Your task to perform on an android device: Search for pizza restaurants on Maps Image 0: 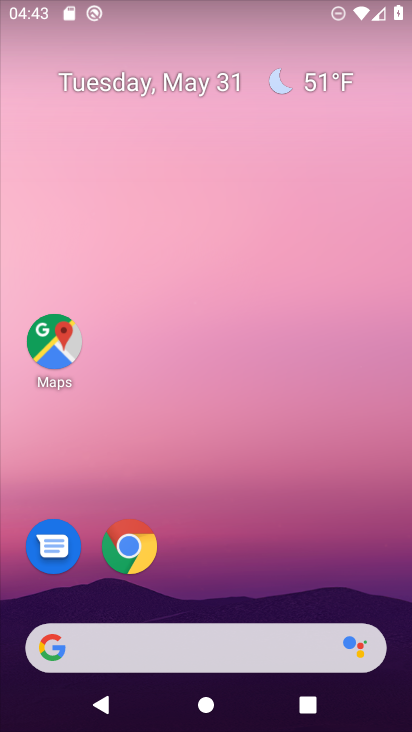
Step 0: click (43, 352)
Your task to perform on an android device: Search for pizza restaurants on Maps Image 1: 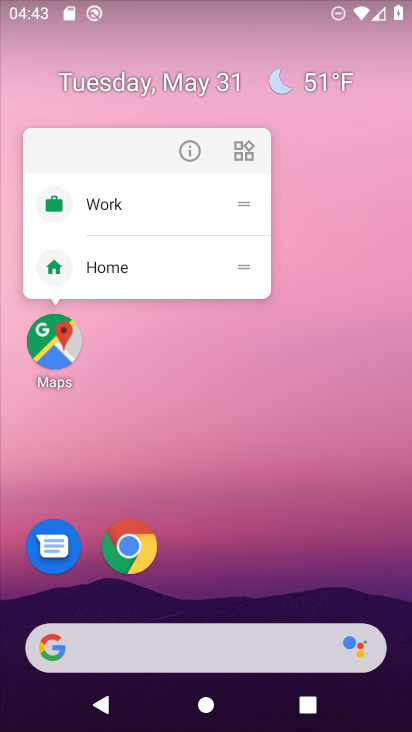
Step 1: click (48, 353)
Your task to perform on an android device: Search for pizza restaurants on Maps Image 2: 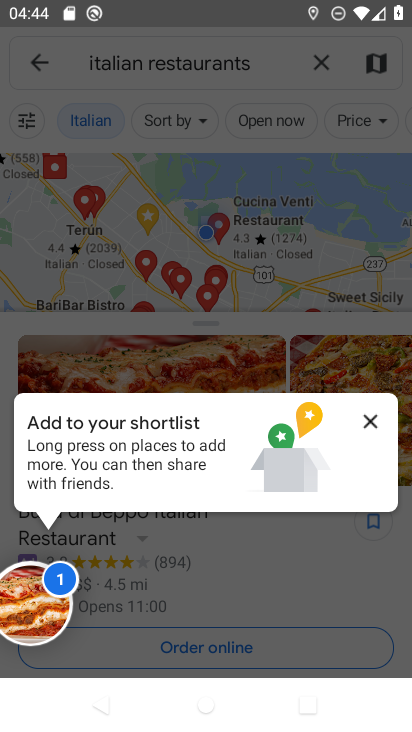
Step 2: click (46, 63)
Your task to perform on an android device: Search for pizza restaurants on Maps Image 3: 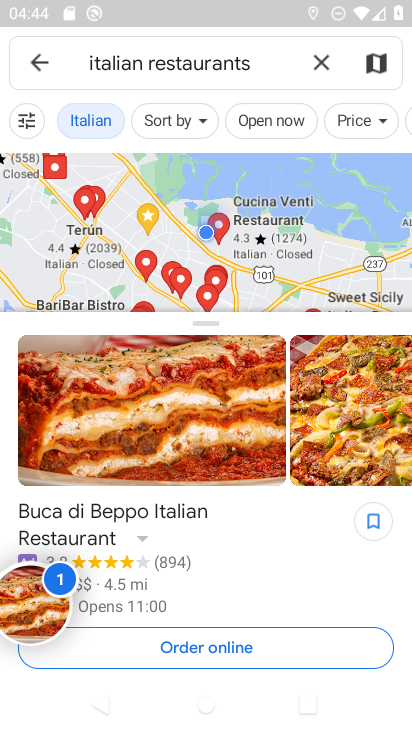
Step 3: click (315, 65)
Your task to perform on an android device: Search for pizza restaurants on Maps Image 4: 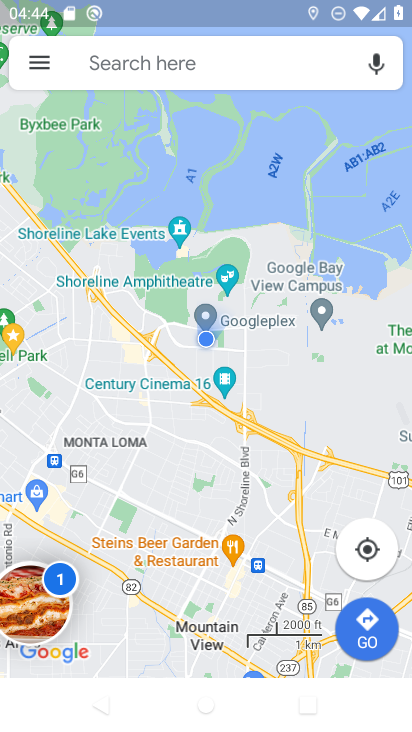
Step 4: click (177, 66)
Your task to perform on an android device: Search for pizza restaurants on Maps Image 5: 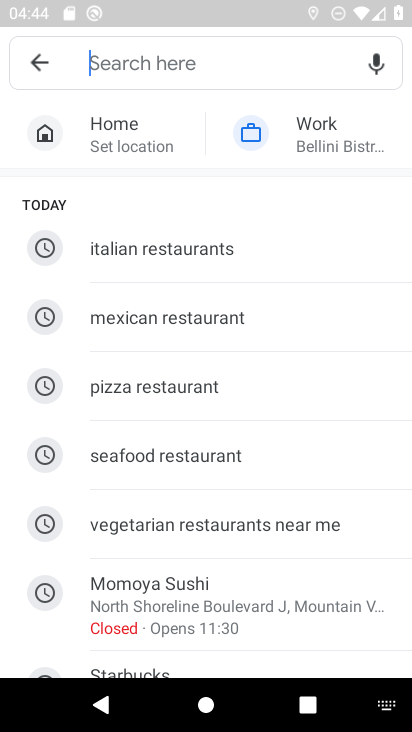
Step 5: click (142, 393)
Your task to perform on an android device: Search for pizza restaurants on Maps Image 6: 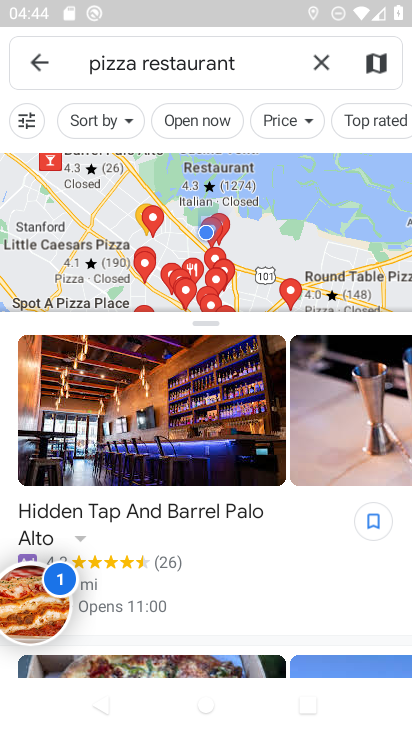
Step 6: task complete